Your task to perform on an android device: toggle pop-ups in chrome Image 0: 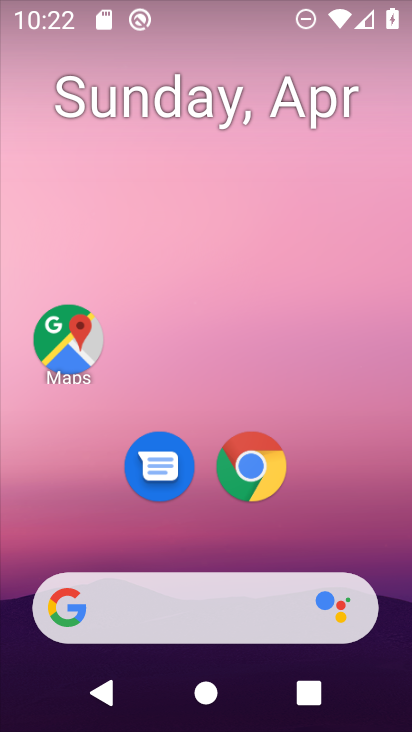
Step 0: drag from (367, 531) to (366, 134)
Your task to perform on an android device: toggle pop-ups in chrome Image 1: 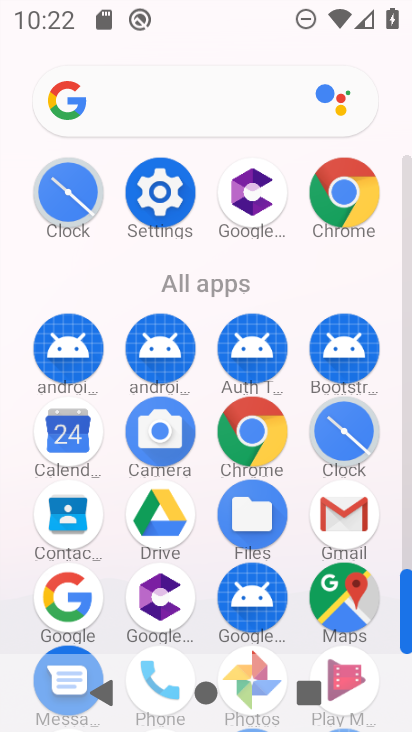
Step 1: click (364, 201)
Your task to perform on an android device: toggle pop-ups in chrome Image 2: 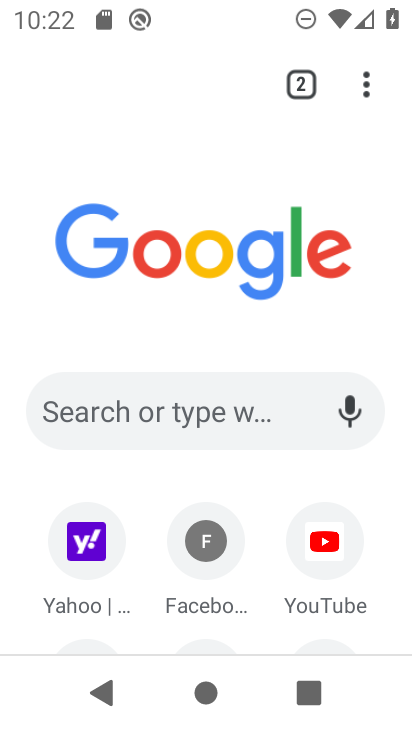
Step 2: click (368, 91)
Your task to perform on an android device: toggle pop-ups in chrome Image 3: 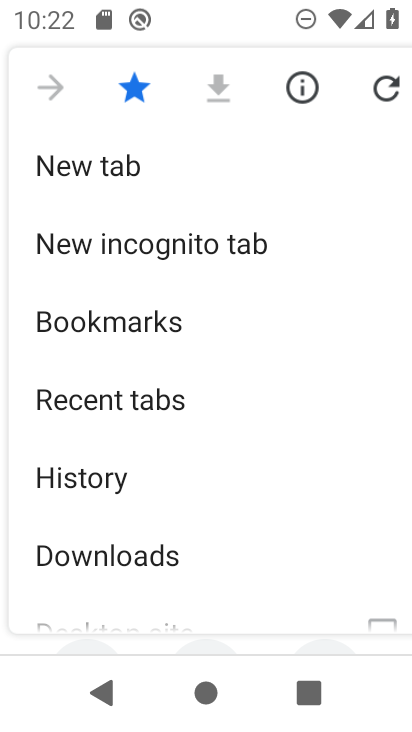
Step 3: drag from (310, 482) to (325, 324)
Your task to perform on an android device: toggle pop-ups in chrome Image 4: 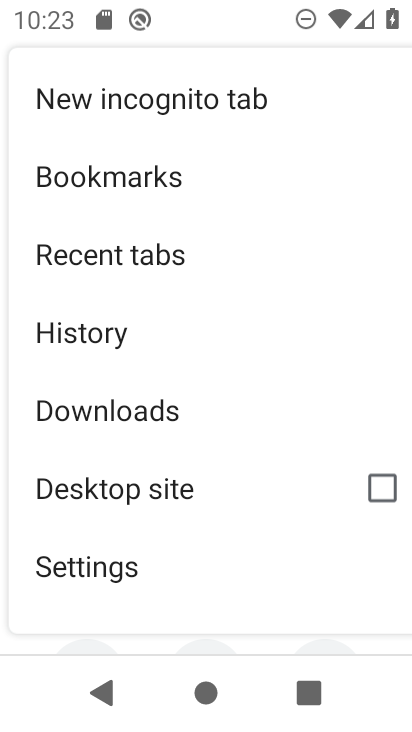
Step 4: drag from (276, 518) to (282, 362)
Your task to perform on an android device: toggle pop-ups in chrome Image 5: 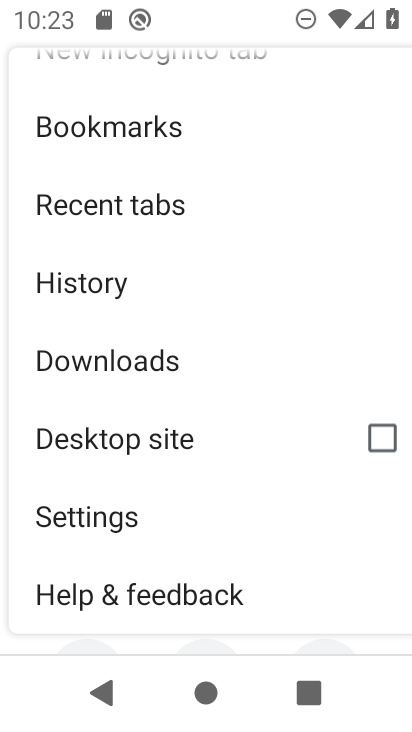
Step 5: click (116, 519)
Your task to perform on an android device: toggle pop-ups in chrome Image 6: 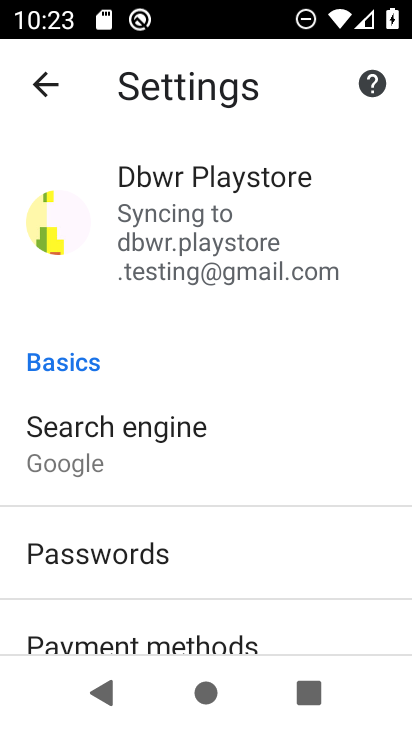
Step 6: drag from (269, 551) to (282, 406)
Your task to perform on an android device: toggle pop-ups in chrome Image 7: 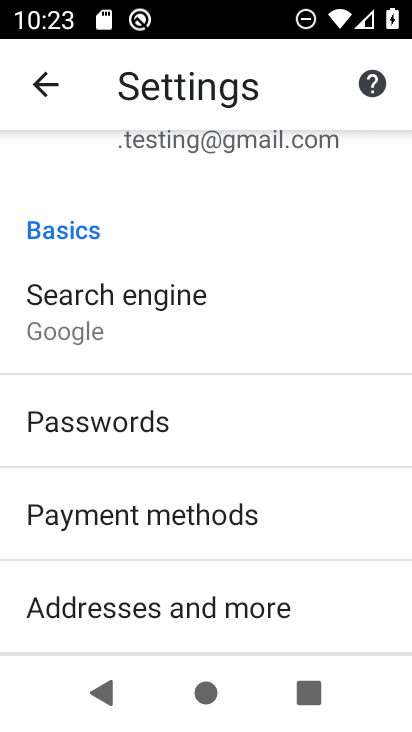
Step 7: drag from (323, 587) to (309, 378)
Your task to perform on an android device: toggle pop-ups in chrome Image 8: 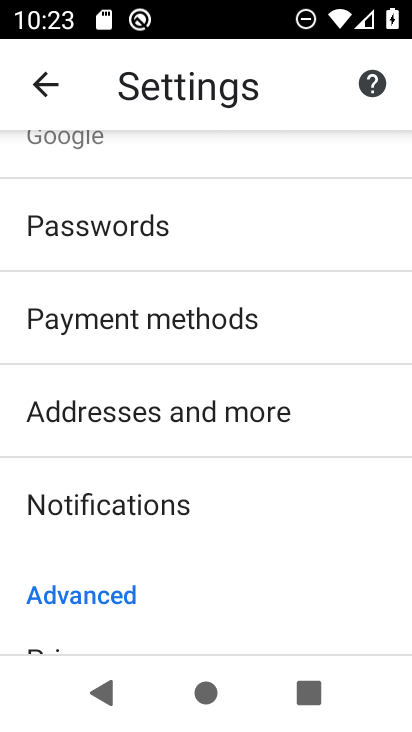
Step 8: drag from (308, 583) to (318, 375)
Your task to perform on an android device: toggle pop-ups in chrome Image 9: 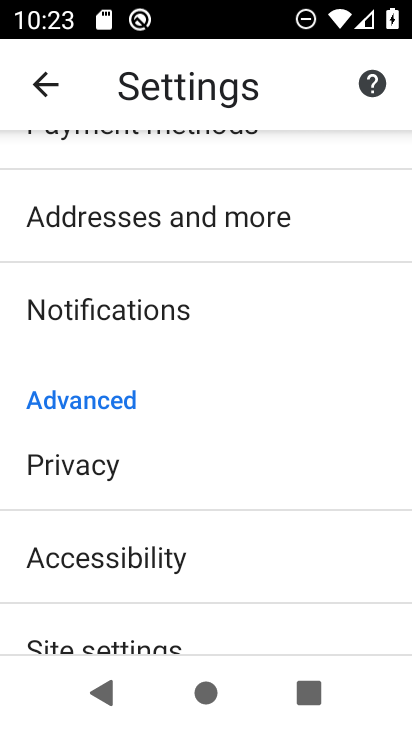
Step 9: drag from (303, 612) to (298, 427)
Your task to perform on an android device: toggle pop-ups in chrome Image 10: 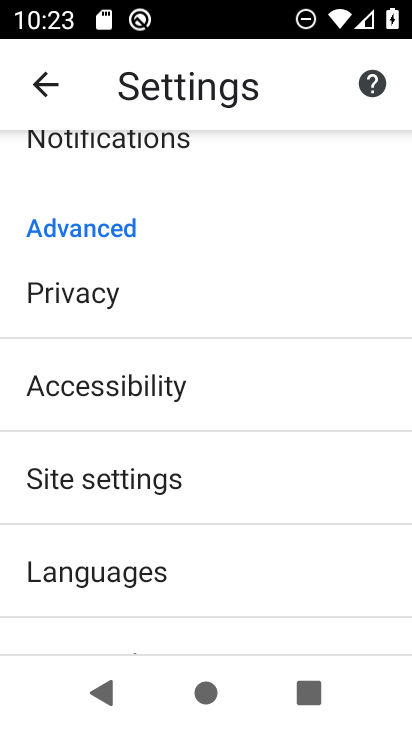
Step 10: click (261, 475)
Your task to perform on an android device: toggle pop-ups in chrome Image 11: 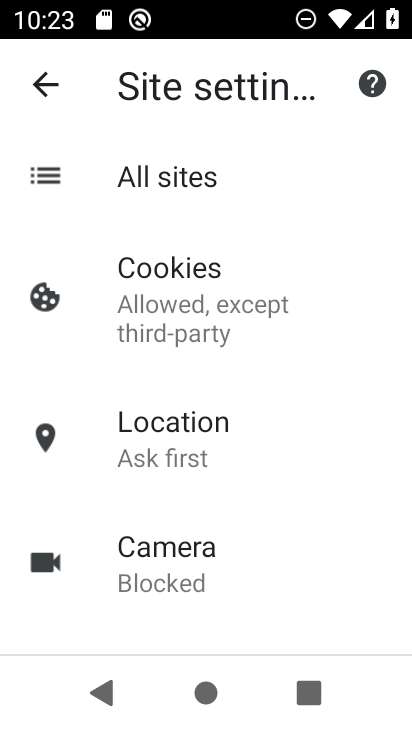
Step 11: drag from (323, 526) to (333, 398)
Your task to perform on an android device: toggle pop-ups in chrome Image 12: 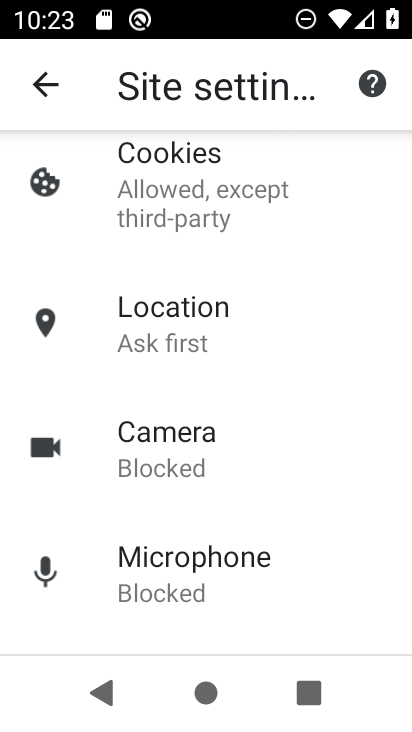
Step 12: drag from (334, 576) to (337, 423)
Your task to perform on an android device: toggle pop-ups in chrome Image 13: 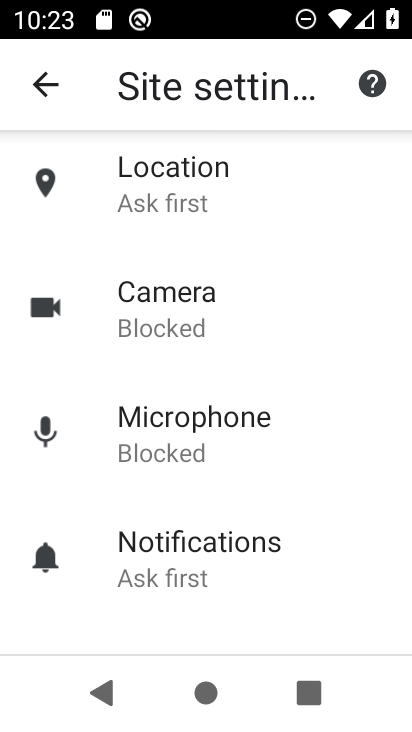
Step 13: drag from (336, 598) to (322, 458)
Your task to perform on an android device: toggle pop-ups in chrome Image 14: 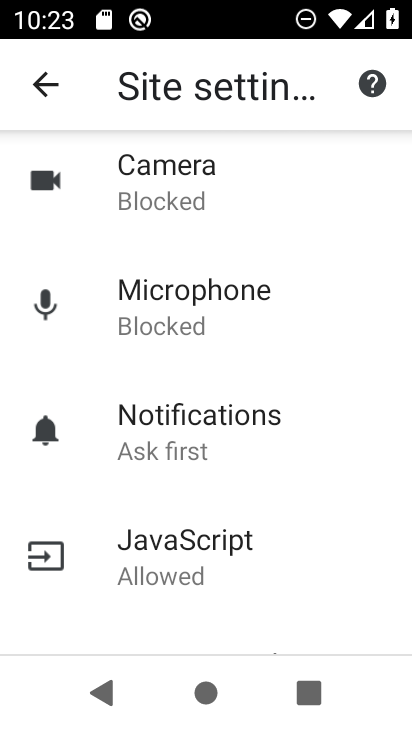
Step 14: drag from (315, 607) to (327, 408)
Your task to perform on an android device: toggle pop-ups in chrome Image 15: 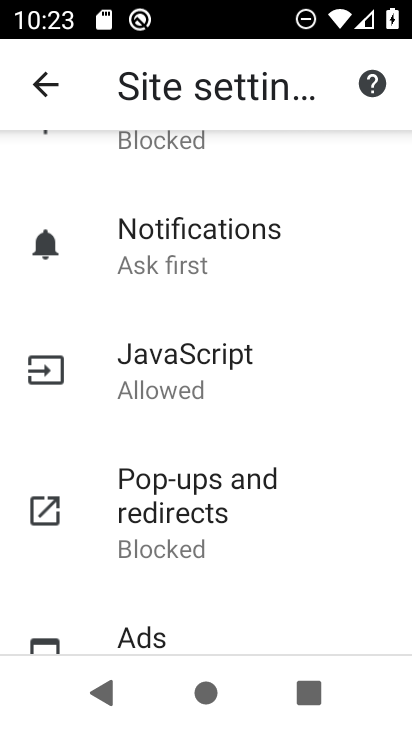
Step 15: drag from (341, 573) to (344, 412)
Your task to perform on an android device: toggle pop-ups in chrome Image 16: 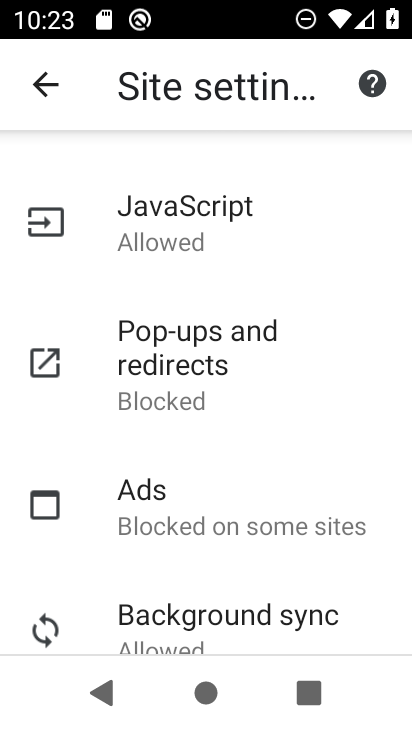
Step 16: drag from (342, 441) to (352, 293)
Your task to perform on an android device: toggle pop-ups in chrome Image 17: 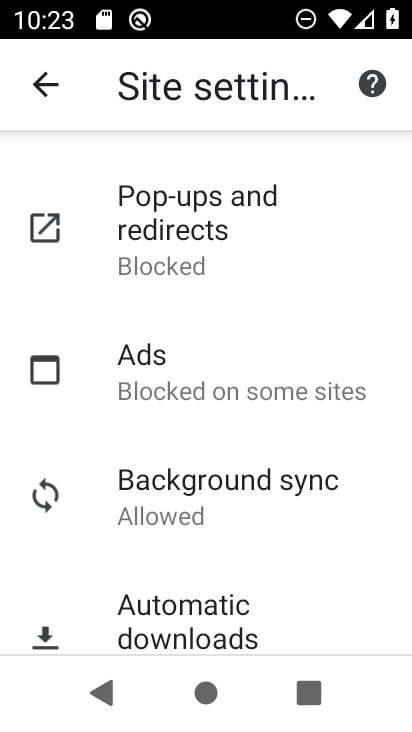
Step 17: click (205, 234)
Your task to perform on an android device: toggle pop-ups in chrome Image 18: 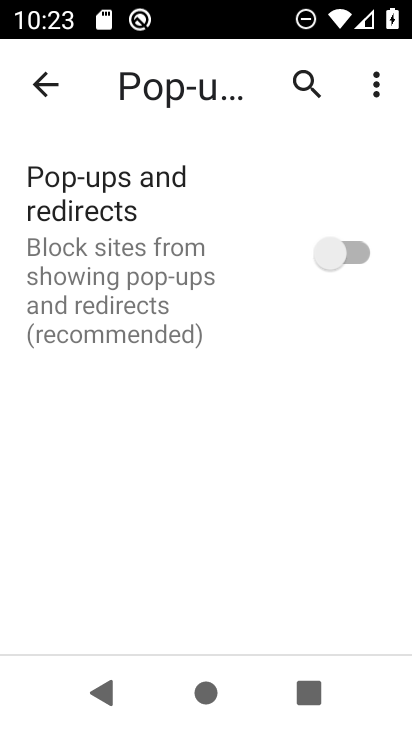
Step 18: click (329, 259)
Your task to perform on an android device: toggle pop-ups in chrome Image 19: 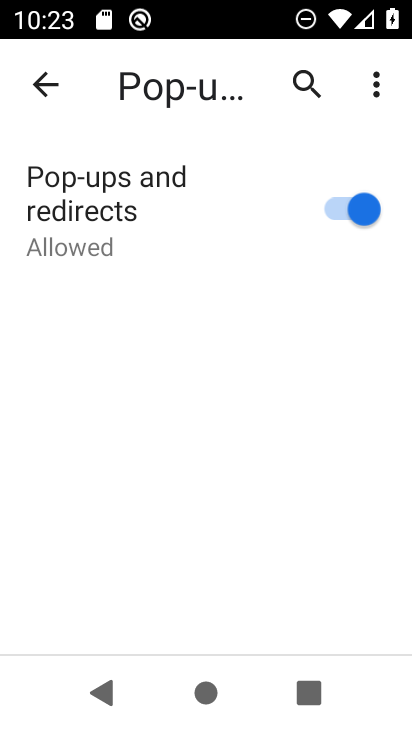
Step 19: task complete